Your task to perform on an android device: Is it going to rain tomorrow? Image 0: 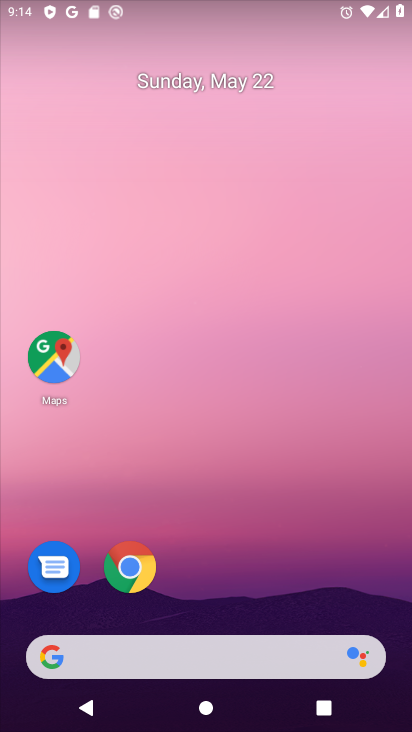
Step 0: click (200, 661)
Your task to perform on an android device: Is it going to rain tomorrow? Image 1: 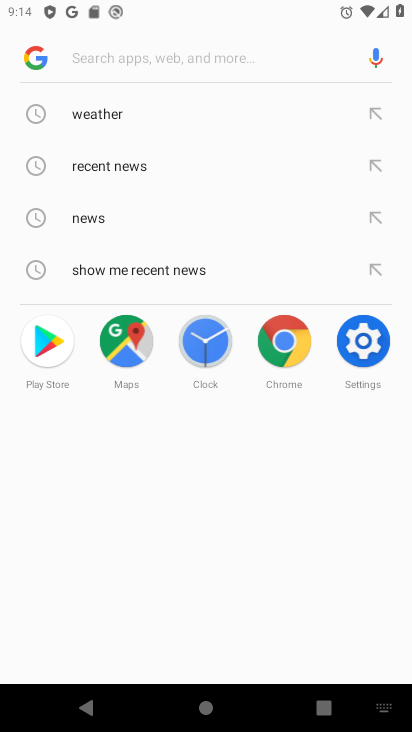
Step 1: click (130, 114)
Your task to perform on an android device: Is it going to rain tomorrow? Image 2: 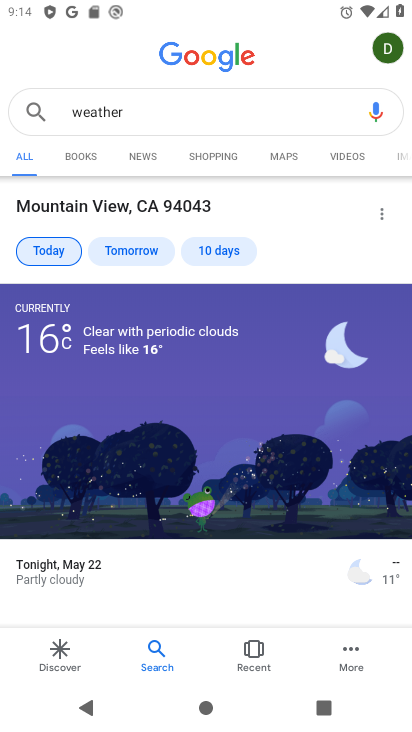
Step 2: click (126, 245)
Your task to perform on an android device: Is it going to rain tomorrow? Image 3: 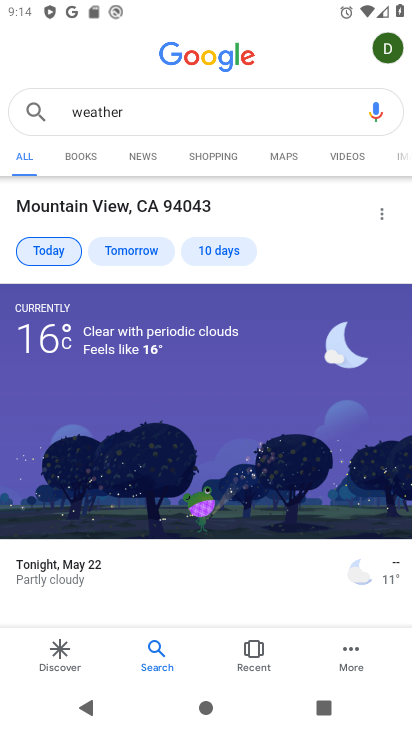
Step 3: click (127, 248)
Your task to perform on an android device: Is it going to rain tomorrow? Image 4: 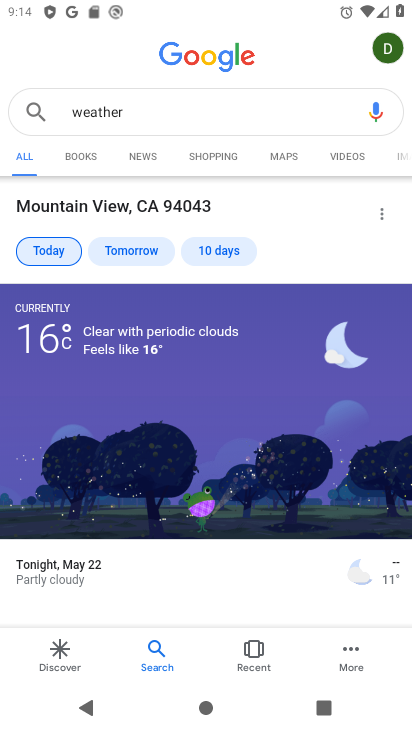
Step 4: click (128, 258)
Your task to perform on an android device: Is it going to rain tomorrow? Image 5: 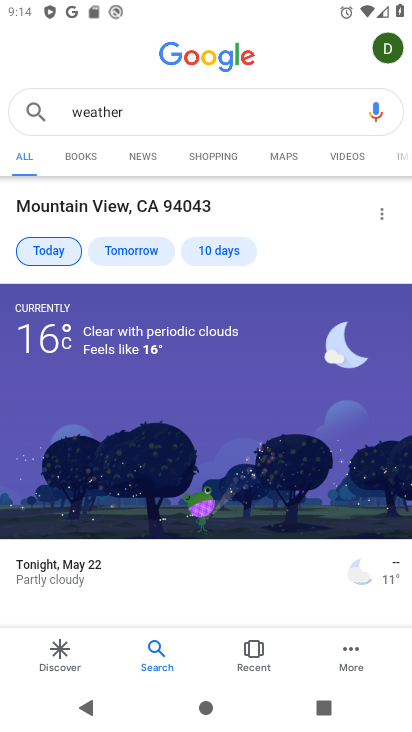
Step 5: click (123, 249)
Your task to perform on an android device: Is it going to rain tomorrow? Image 6: 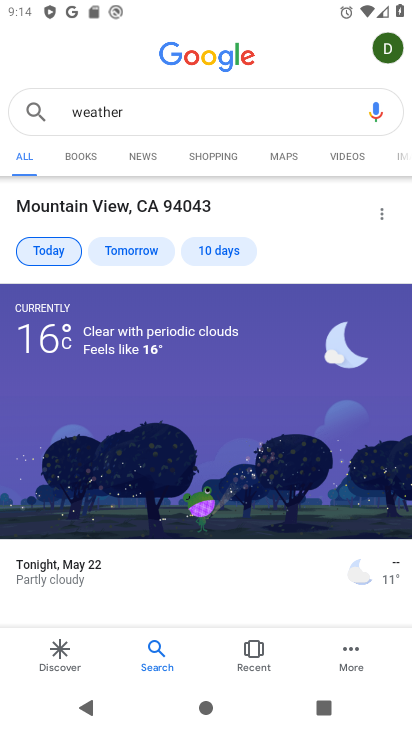
Step 6: click (123, 249)
Your task to perform on an android device: Is it going to rain tomorrow? Image 7: 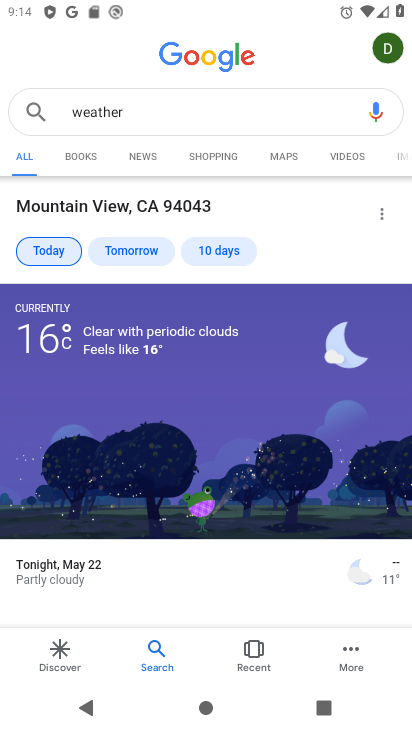
Step 7: click (123, 250)
Your task to perform on an android device: Is it going to rain tomorrow? Image 8: 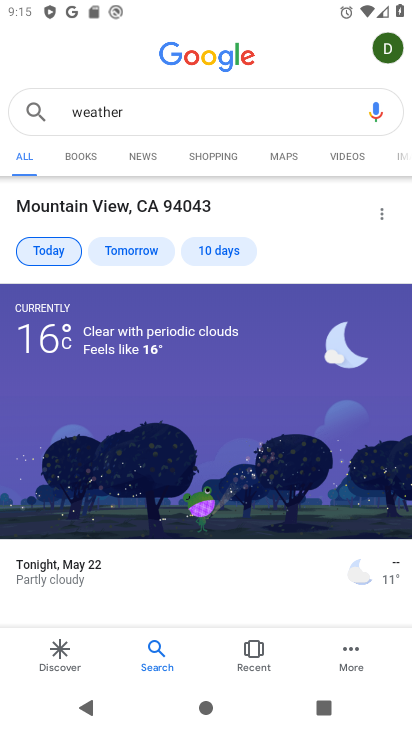
Step 8: click (133, 250)
Your task to perform on an android device: Is it going to rain tomorrow? Image 9: 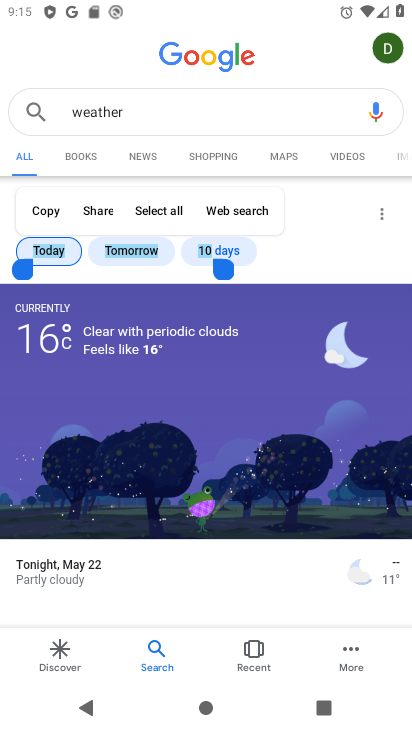
Step 9: task complete